Your task to perform on an android device: Open Google Image 0: 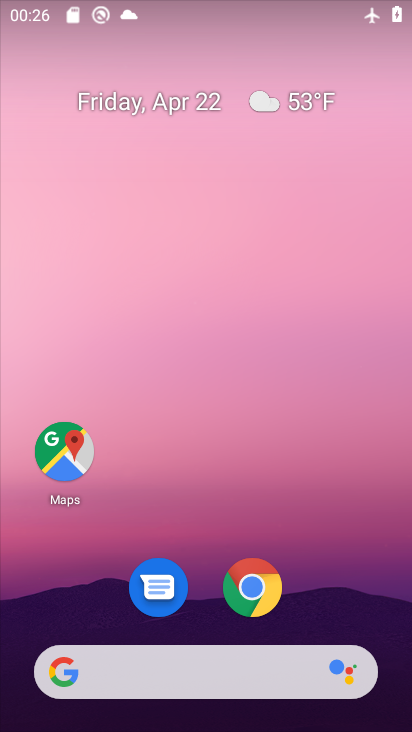
Step 0: press home button
Your task to perform on an android device: Open Google Image 1: 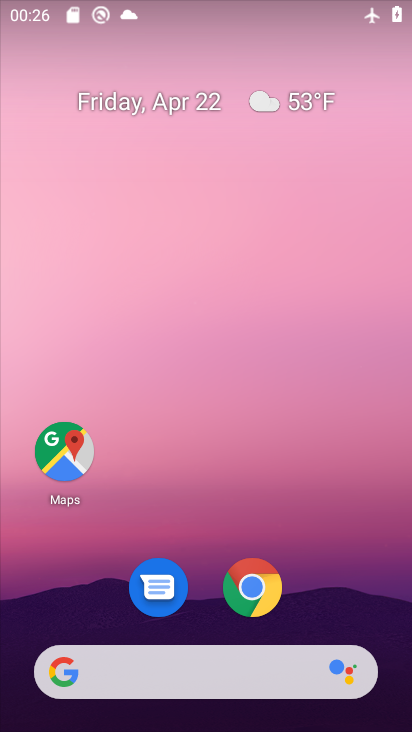
Step 1: drag from (294, 593) to (299, 192)
Your task to perform on an android device: Open Google Image 2: 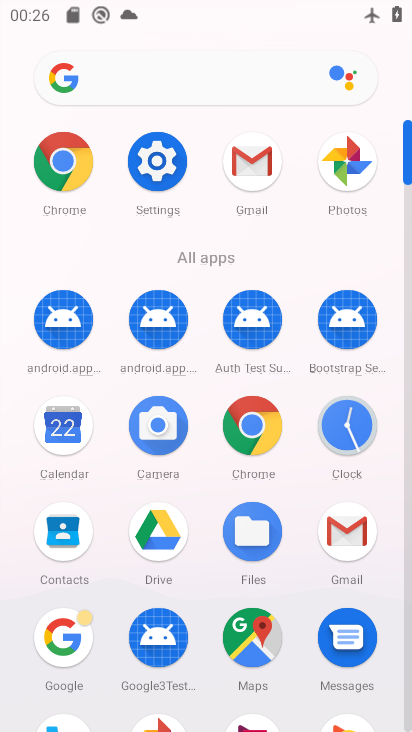
Step 2: click (72, 642)
Your task to perform on an android device: Open Google Image 3: 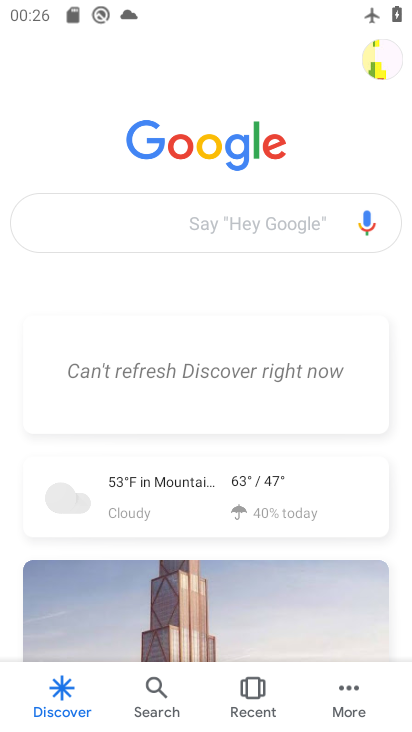
Step 3: task complete